Your task to perform on an android device: Show me the alarms in the clock app Image 0: 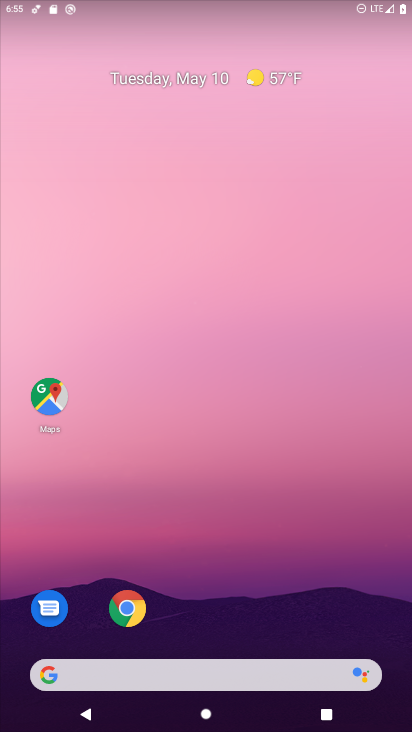
Step 0: drag from (390, 616) to (300, 87)
Your task to perform on an android device: Show me the alarms in the clock app Image 1: 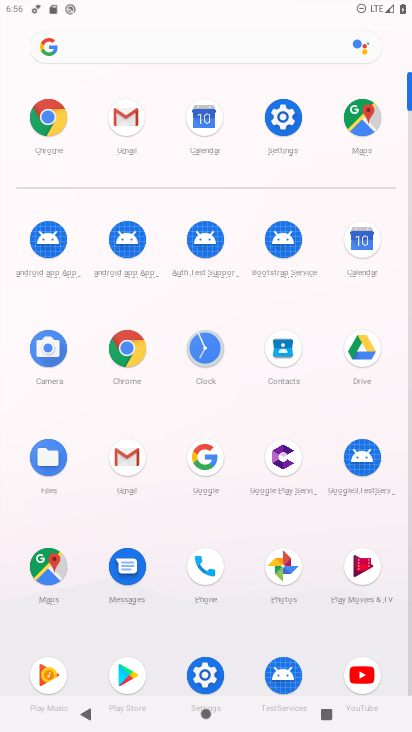
Step 1: click (203, 343)
Your task to perform on an android device: Show me the alarms in the clock app Image 2: 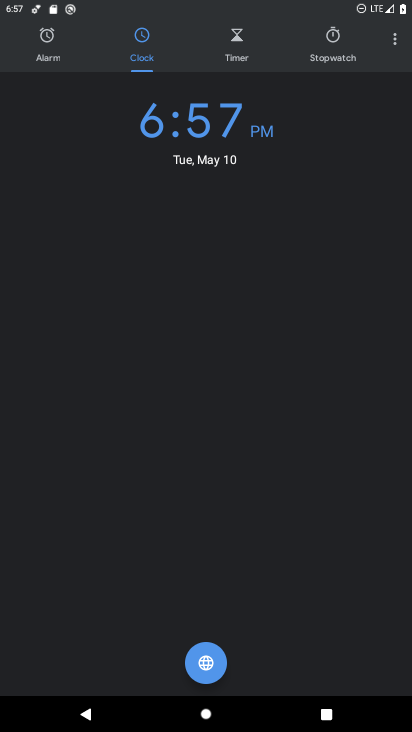
Step 2: click (51, 47)
Your task to perform on an android device: Show me the alarms in the clock app Image 3: 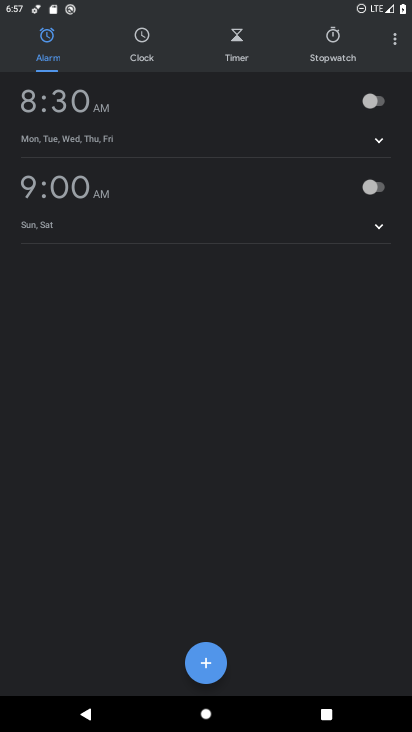
Step 3: task complete